Your task to perform on an android device: Open Google Chrome and click the shortcut for Amazon.com Image 0: 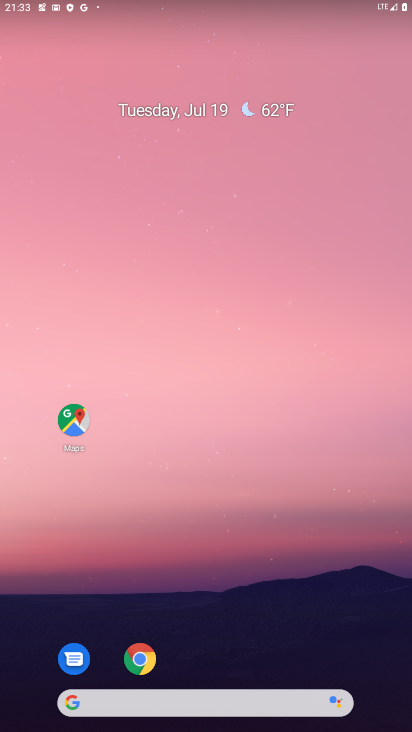
Step 0: press home button
Your task to perform on an android device: Open Google Chrome and click the shortcut for Amazon.com Image 1: 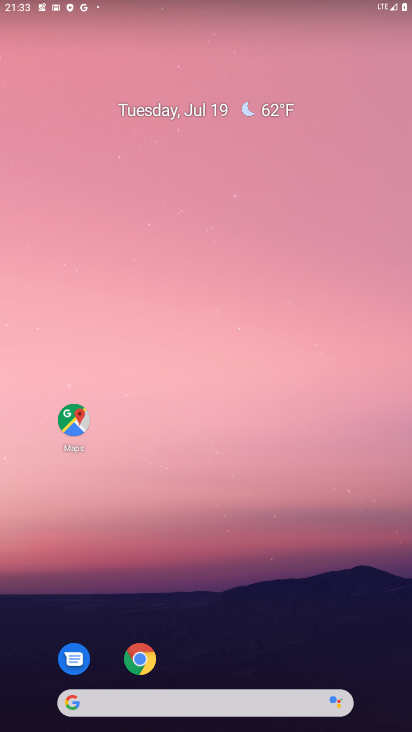
Step 1: click (139, 667)
Your task to perform on an android device: Open Google Chrome and click the shortcut for Amazon.com Image 2: 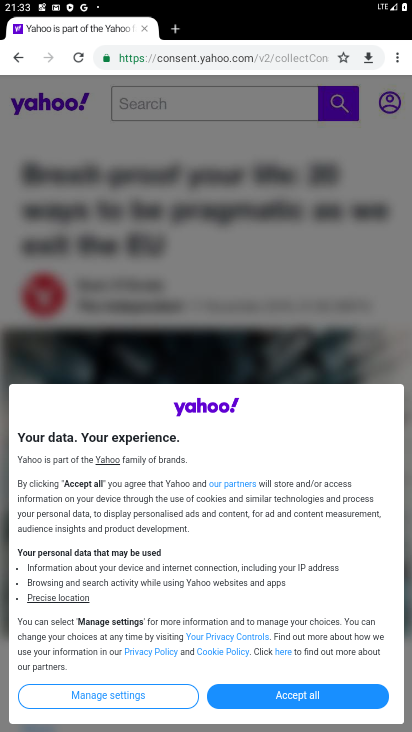
Step 2: click (217, 60)
Your task to perform on an android device: Open Google Chrome and click the shortcut for Amazon.com Image 3: 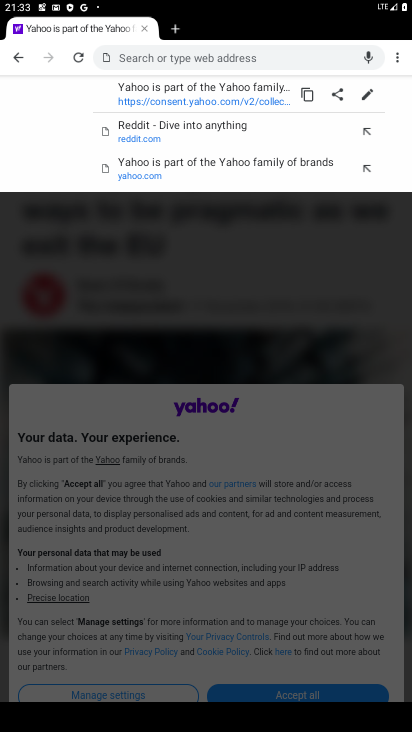
Step 3: type "Amazon.com"
Your task to perform on an android device: Open Google Chrome and click the shortcut for Amazon.com Image 4: 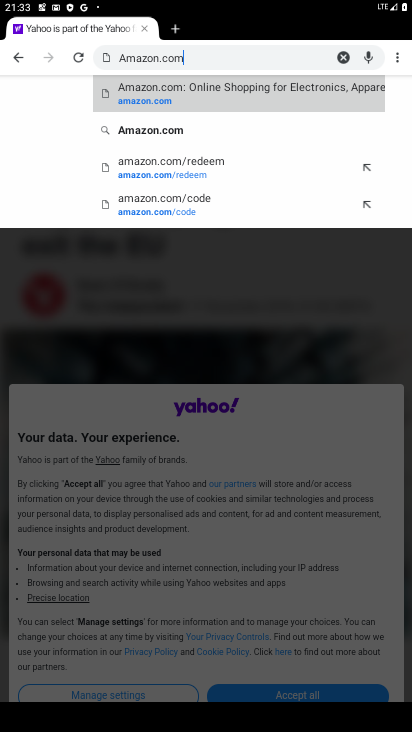
Step 4: type ""
Your task to perform on an android device: Open Google Chrome and click the shortcut for Amazon.com Image 5: 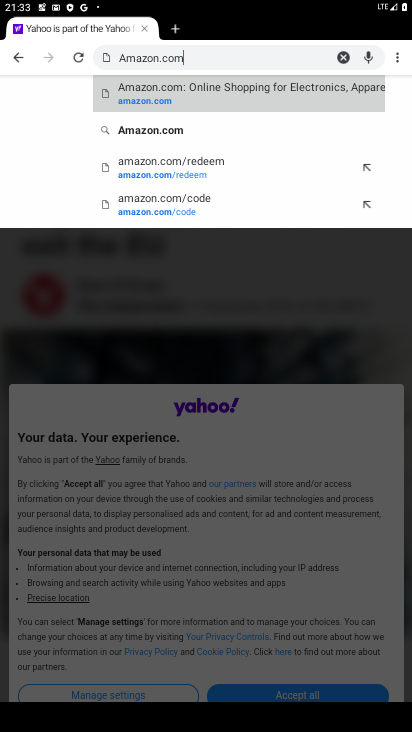
Step 5: click (237, 94)
Your task to perform on an android device: Open Google Chrome and click the shortcut for Amazon.com Image 6: 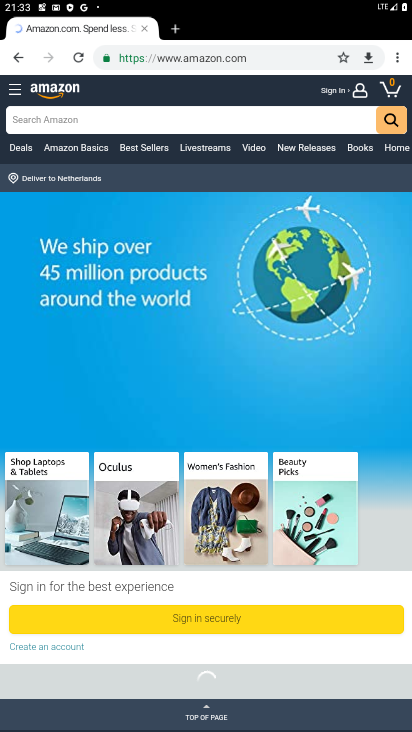
Step 6: task complete